Your task to perform on an android device: Play the last video I watched on Youtube Image 0: 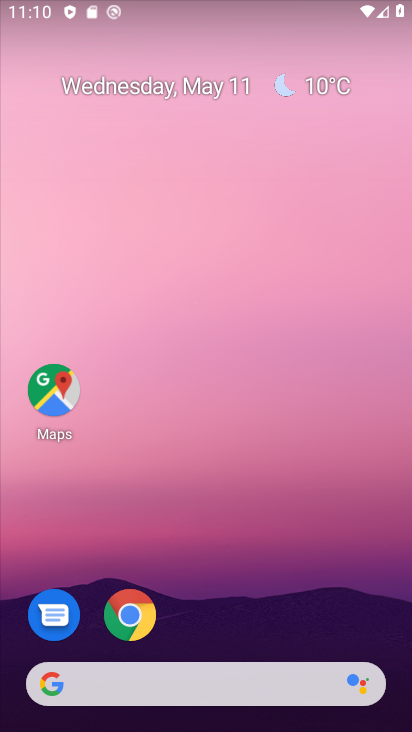
Step 0: drag from (197, 642) to (329, 197)
Your task to perform on an android device: Play the last video I watched on Youtube Image 1: 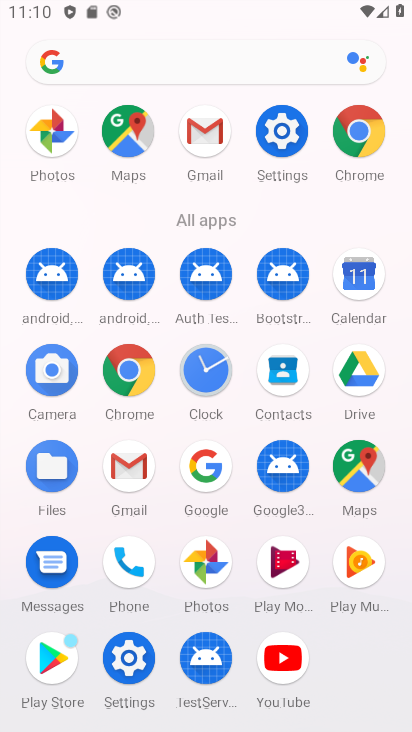
Step 1: click (293, 669)
Your task to perform on an android device: Play the last video I watched on Youtube Image 2: 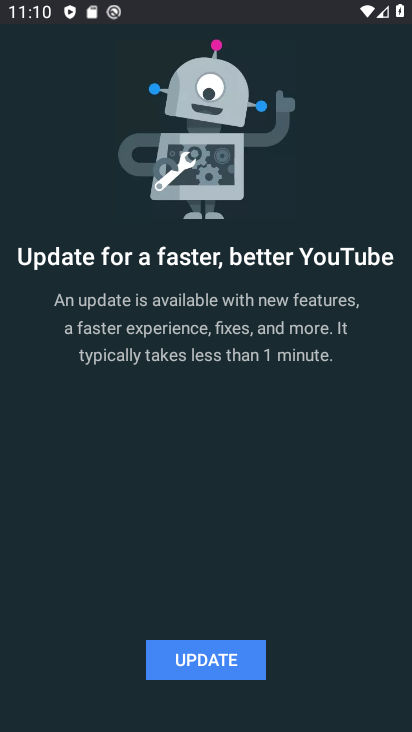
Step 2: click (228, 669)
Your task to perform on an android device: Play the last video I watched on Youtube Image 3: 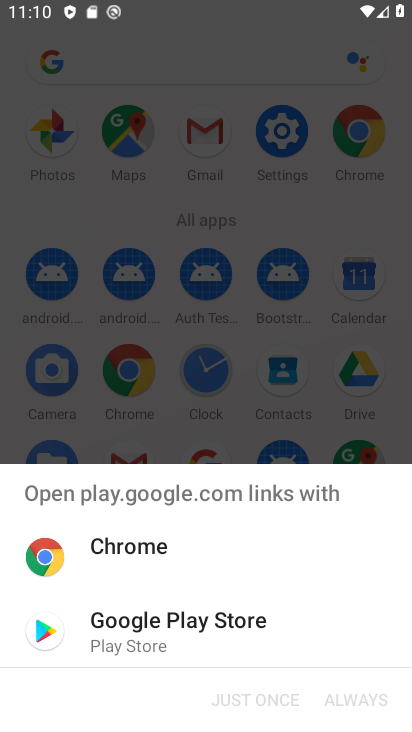
Step 3: click (237, 641)
Your task to perform on an android device: Play the last video I watched on Youtube Image 4: 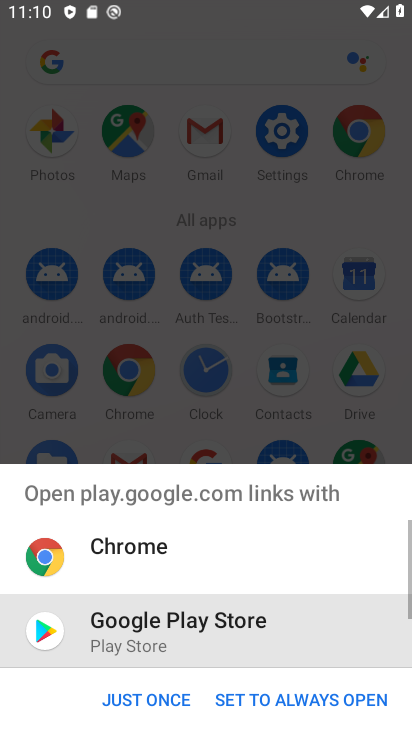
Step 4: click (142, 696)
Your task to perform on an android device: Play the last video I watched on Youtube Image 5: 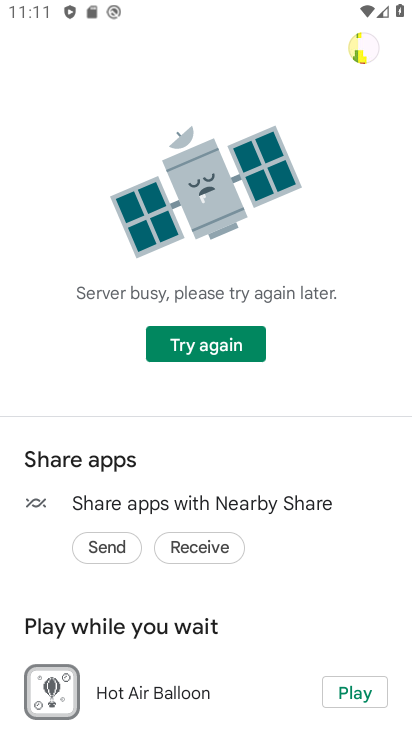
Step 5: click (209, 353)
Your task to perform on an android device: Play the last video I watched on Youtube Image 6: 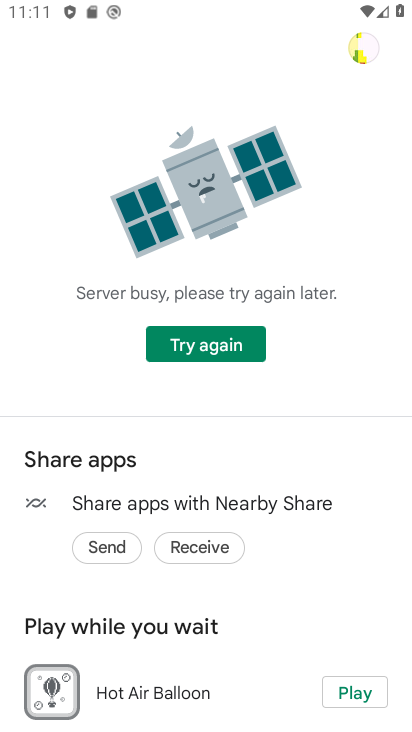
Step 6: task complete